Your task to perform on an android device: find which apps use the phone's location Image 0: 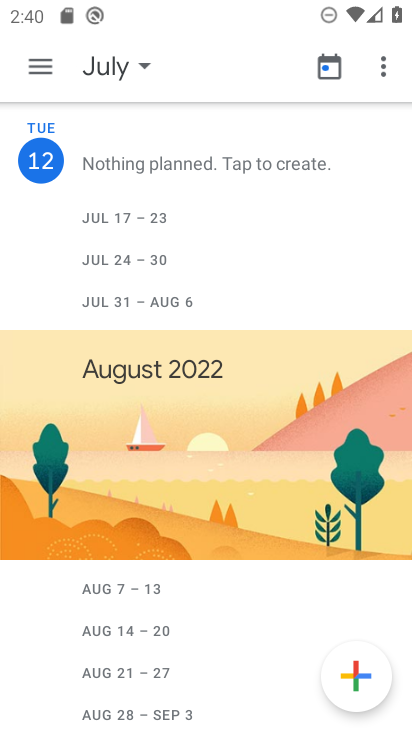
Step 0: press home button
Your task to perform on an android device: find which apps use the phone's location Image 1: 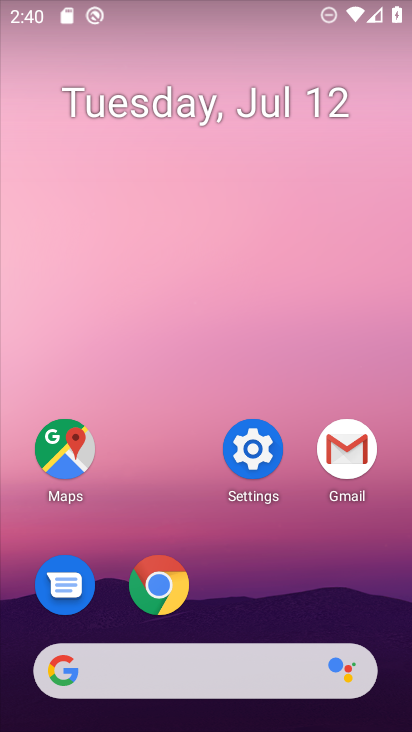
Step 1: click (248, 461)
Your task to perform on an android device: find which apps use the phone's location Image 2: 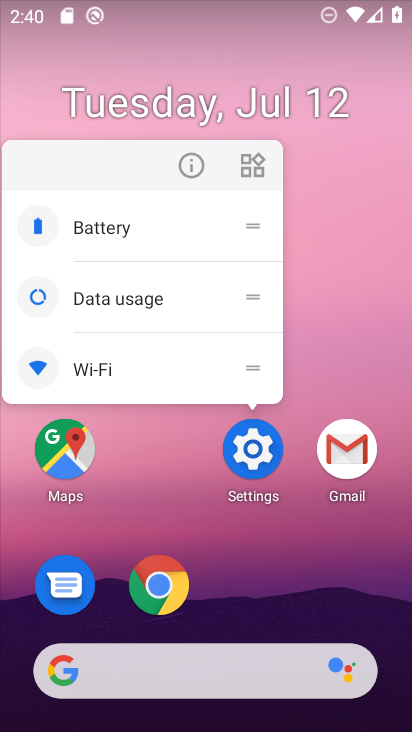
Step 2: click (248, 461)
Your task to perform on an android device: find which apps use the phone's location Image 3: 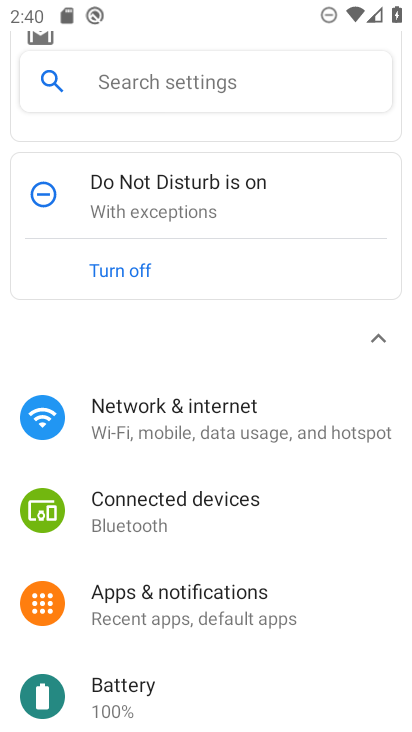
Step 3: drag from (232, 533) to (191, 242)
Your task to perform on an android device: find which apps use the phone's location Image 4: 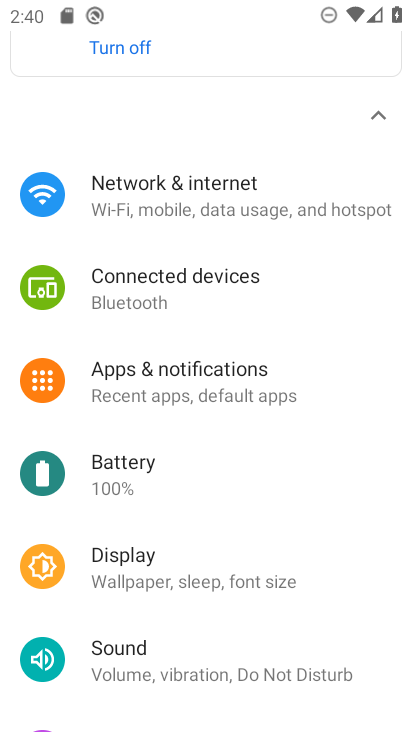
Step 4: drag from (195, 676) to (180, 247)
Your task to perform on an android device: find which apps use the phone's location Image 5: 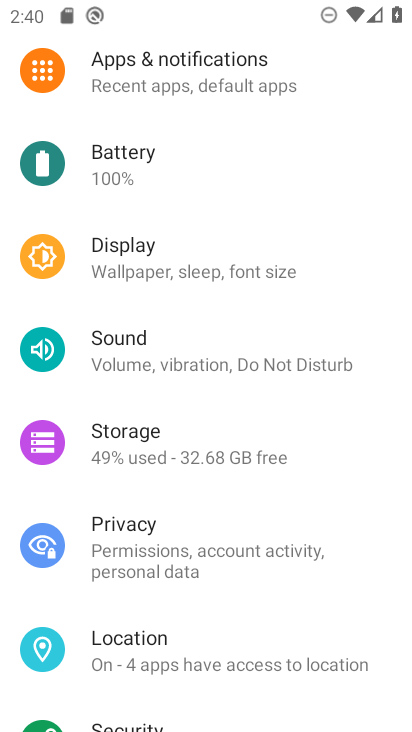
Step 5: click (117, 644)
Your task to perform on an android device: find which apps use the phone's location Image 6: 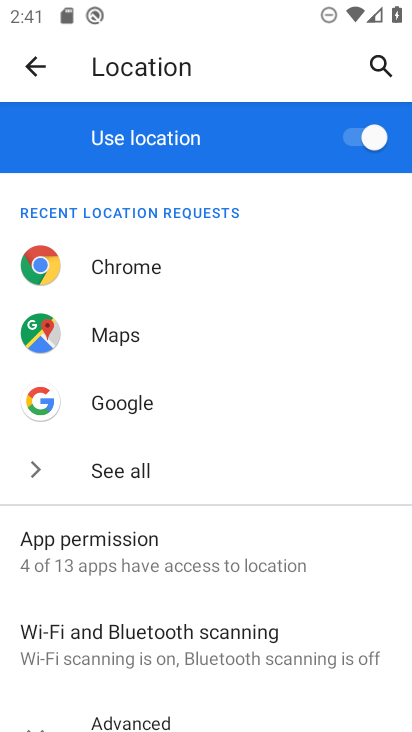
Step 6: click (107, 551)
Your task to perform on an android device: find which apps use the phone's location Image 7: 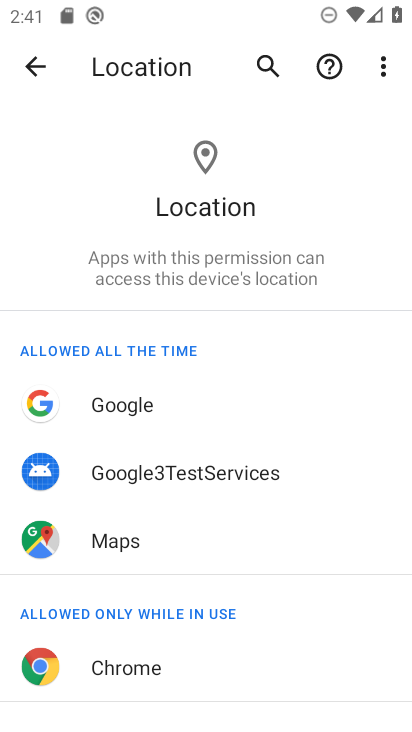
Step 7: task complete